Your task to perform on an android device: open sync settings in chrome Image 0: 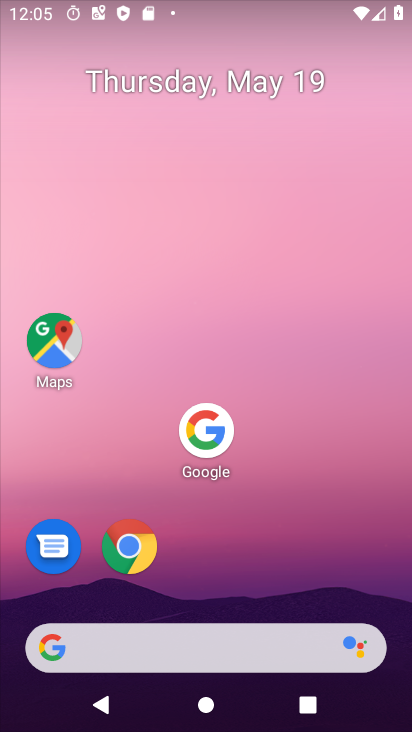
Step 0: drag from (255, 534) to (248, 41)
Your task to perform on an android device: open sync settings in chrome Image 1: 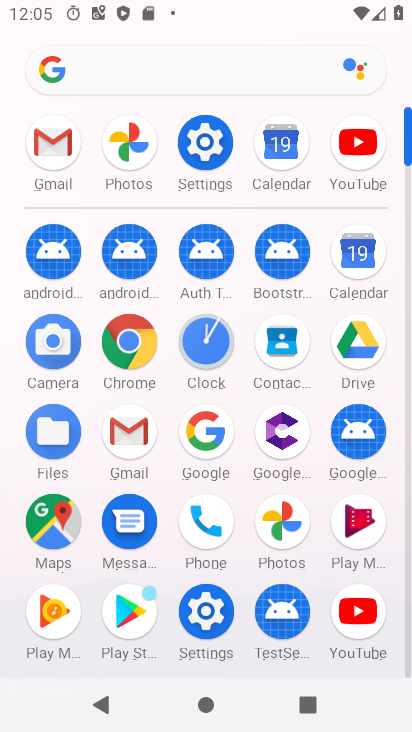
Step 1: click (132, 344)
Your task to perform on an android device: open sync settings in chrome Image 2: 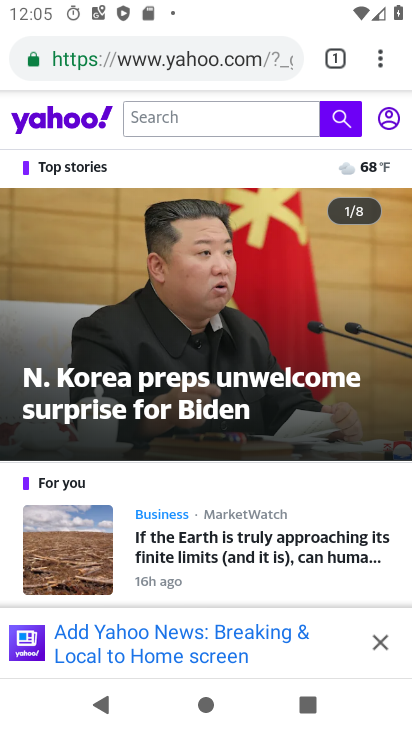
Step 2: click (364, 63)
Your task to perform on an android device: open sync settings in chrome Image 3: 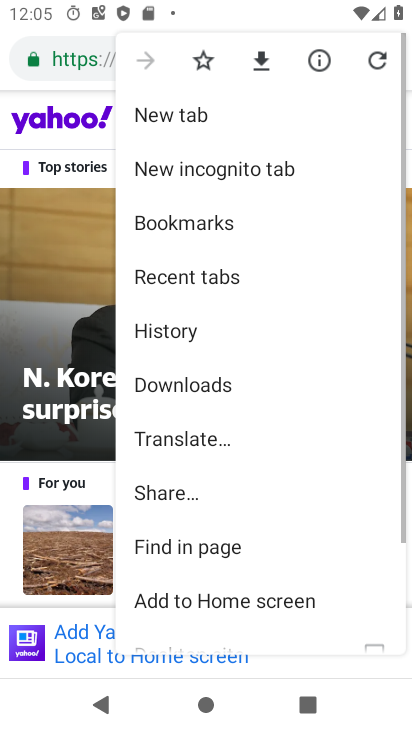
Step 3: drag from (214, 563) to (231, 143)
Your task to perform on an android device: open sync settings in chrome Image 4: 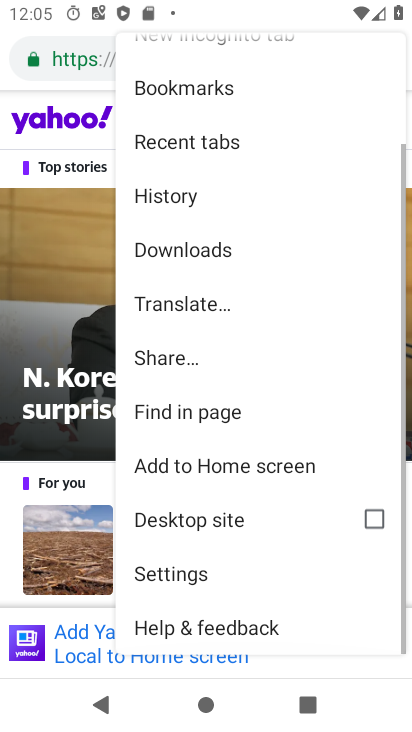
Step 4: click (196, 574)
Your task to perform on an android device: open sync settings in chrome Image 5: 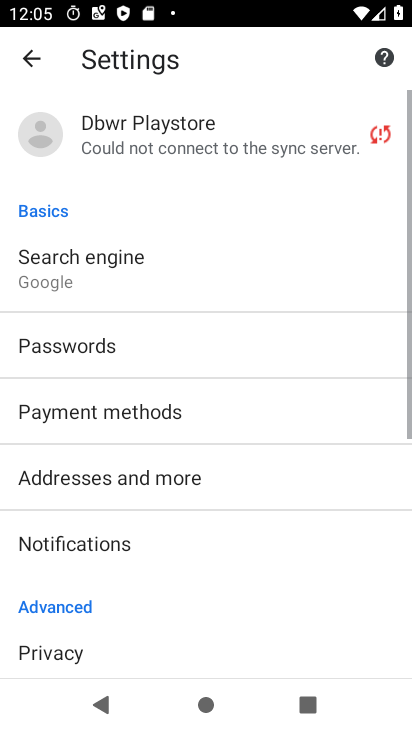
Step 5: drag from (252, 567) to (220, 38)
Your task to perform on an android device: open sync settings in chrome Image 6: 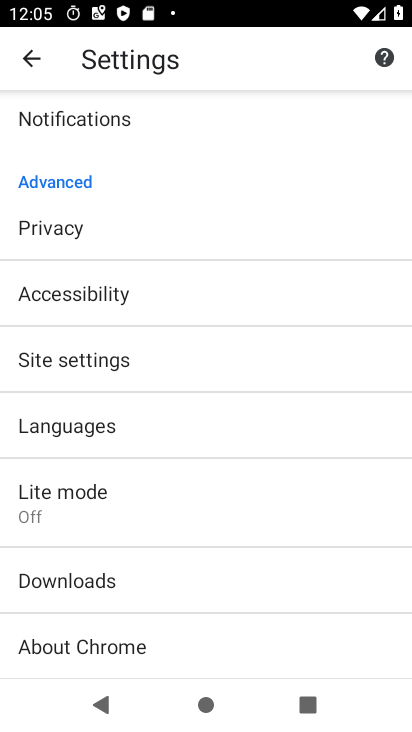
Step 6: click (83, 360)
Your task to perform on an android device: open sync settings in chrome Image 7: 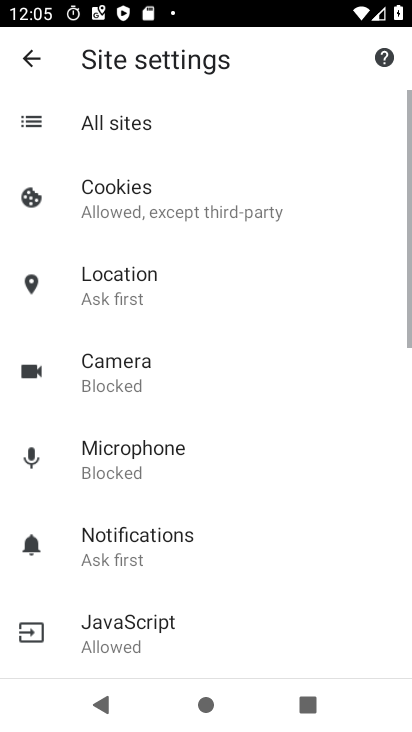
Step 7: drag from (307, 569) to (285, 168)
Your task to perform on an android device: open sync settings in chrome Image 8: 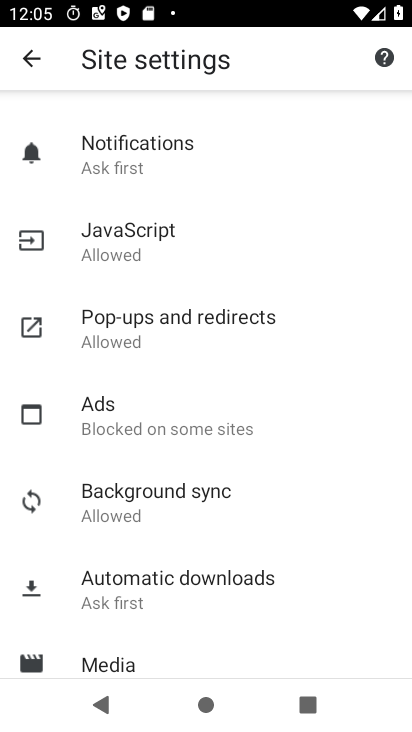
Step 8: click (183, 521)
Your task to perform on an android device: open sync settings in chrome Image 9: 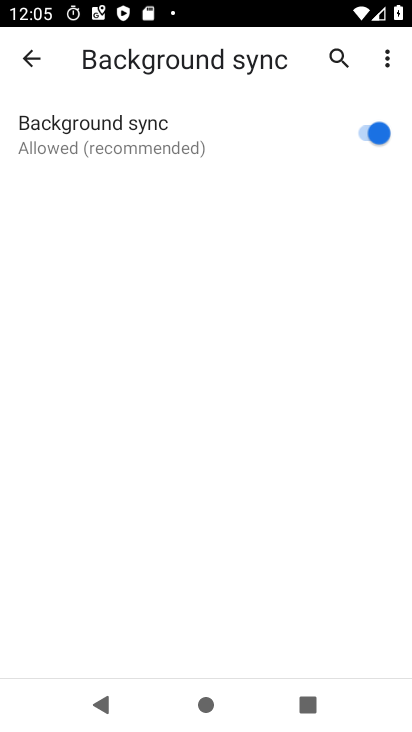
Step 9: task complete